Your task to perform on an android device: Go to Google Image 0: 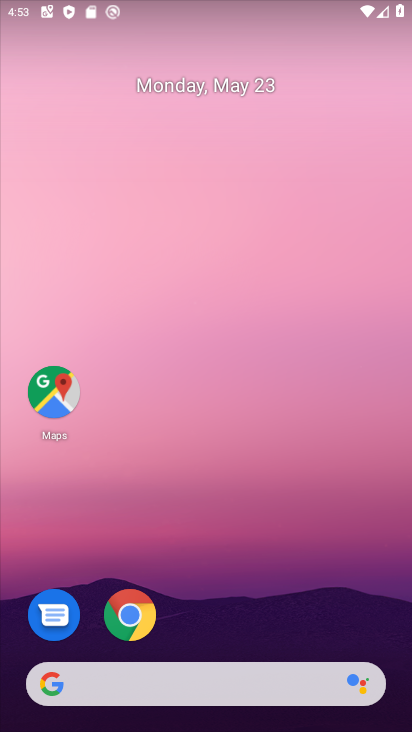
Step 0: drag from (282, 608) to (345, 57)
Your task to perform on an android device: Go to Google Image 1: 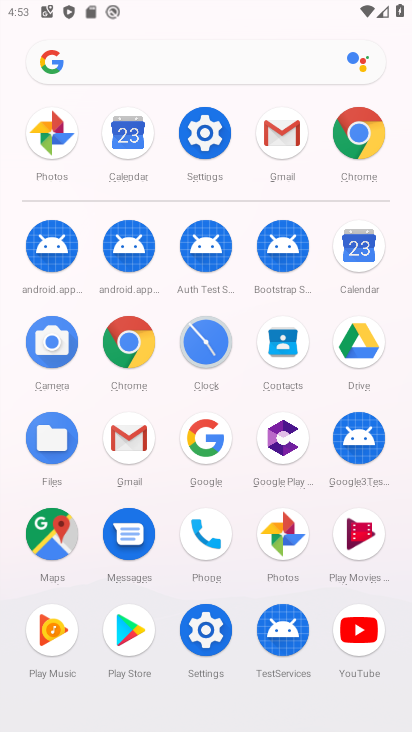
Step 1: click (212, 450)
Your task to perform on an android device: Go to Google Image 2: 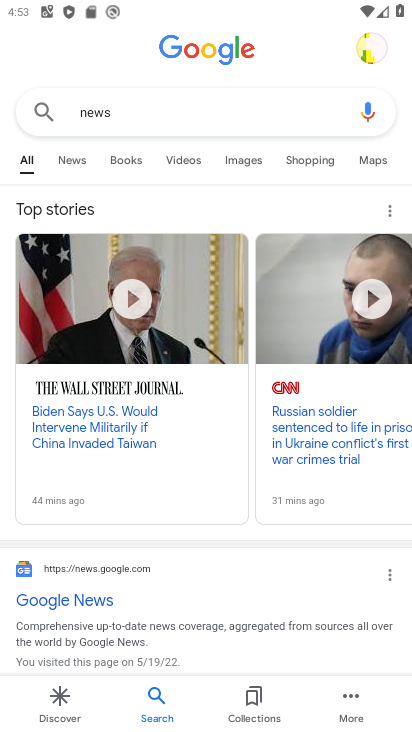
Step 2: task complete